Your task to perform on an android device: Add "bose soundsport free" to the cart on target, then select checkout. Image 0: 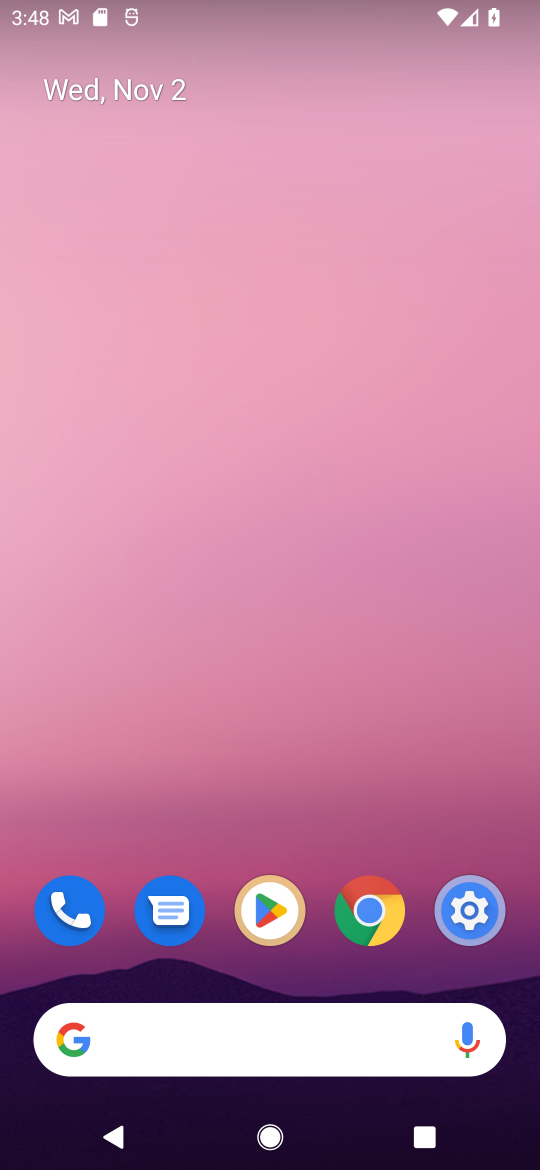
Step 0: click (155, 1029)
Your task to perform on an android device: Add "bose soundsport free" to the cart on target, then select checkout. Image 1: 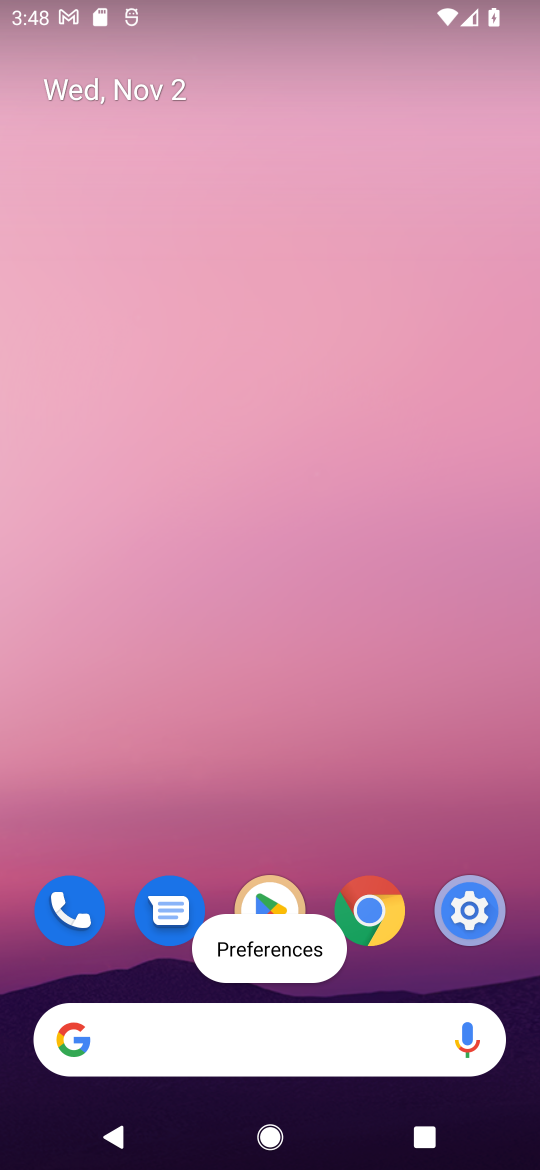
Step 1: click (161, 1034)
Your task to perform on an android device: Add "bose soundsport free" to the cart on target, then select checkout. Image 2: 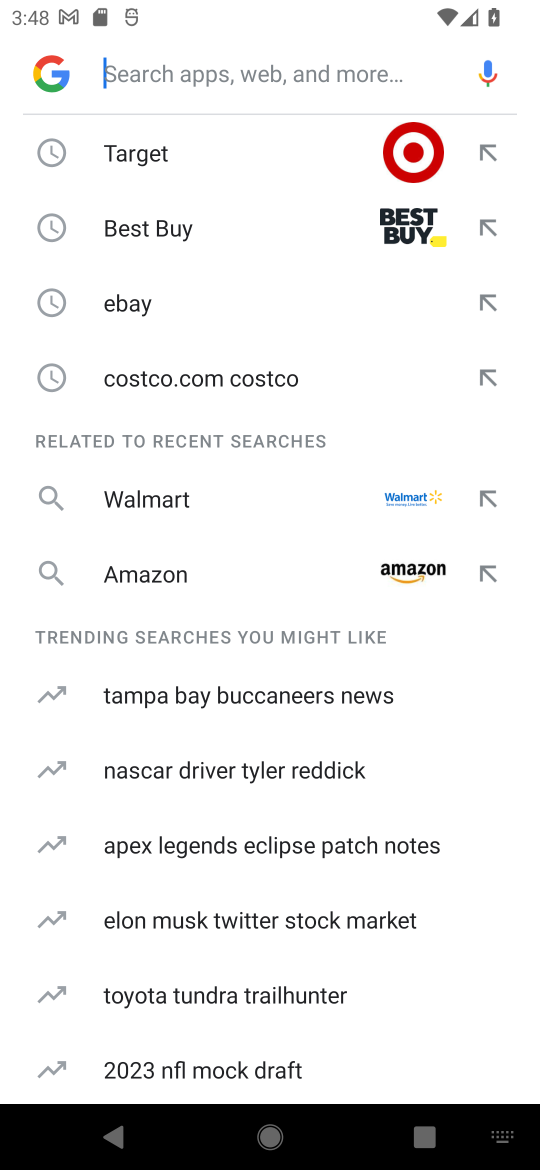
Step 2: click (147, 172)
Your task to perform on an android device: Add "bose soundsport free" to the cart on target, then select checkout. Image 3: 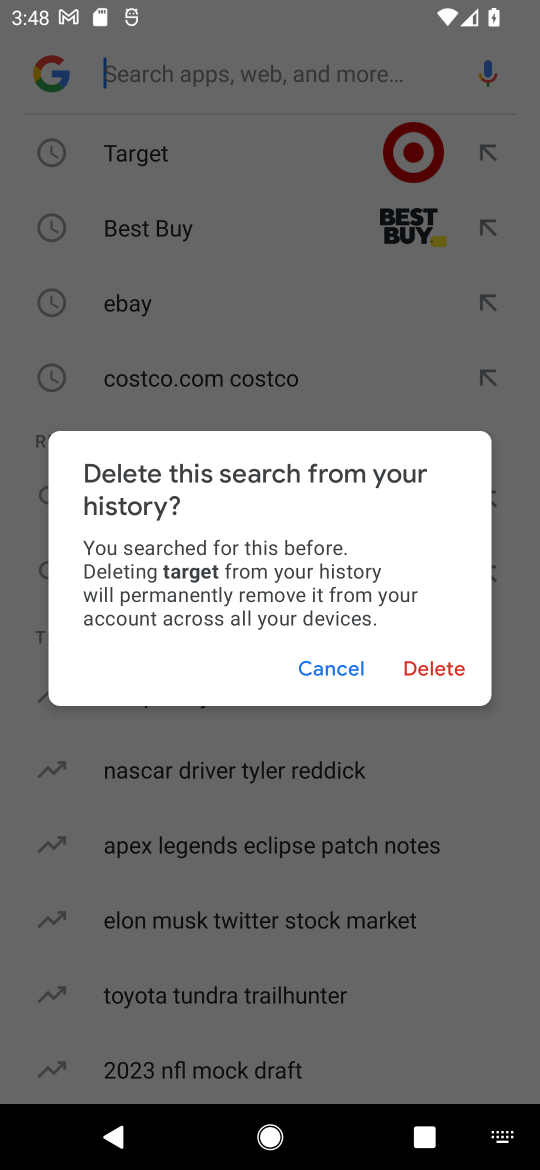
Step 3: click (300, 668)
Your task to perform on an android device: Add "bose soundsport free" to the cart on target, then select checkout. Image 4: 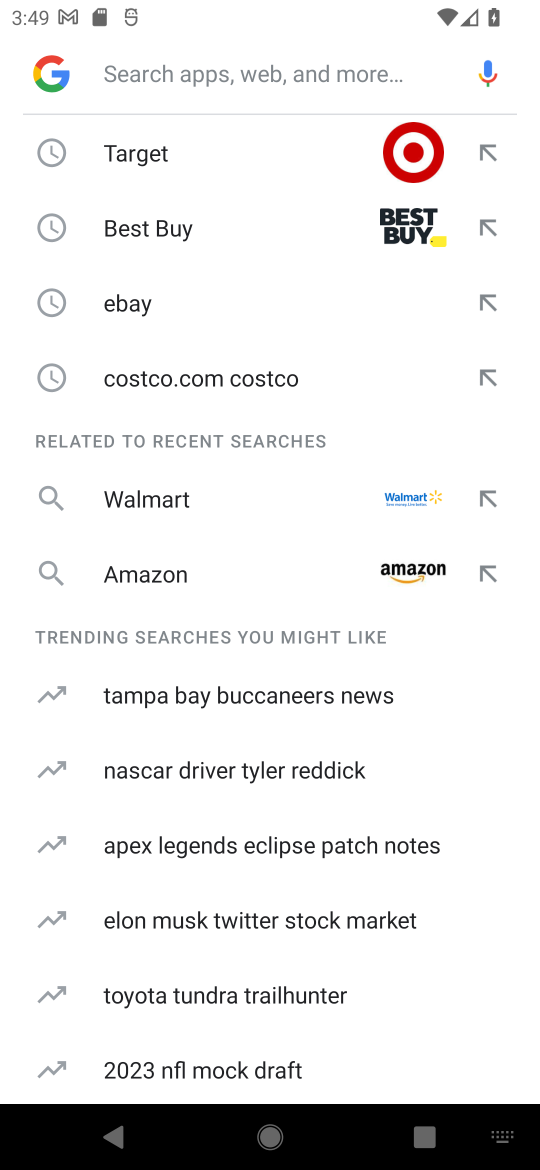
Step 4: type "target"
Your task to perform on an android device: Add "bose soundsport free" to the cart on target, then select checkout. Image 5: 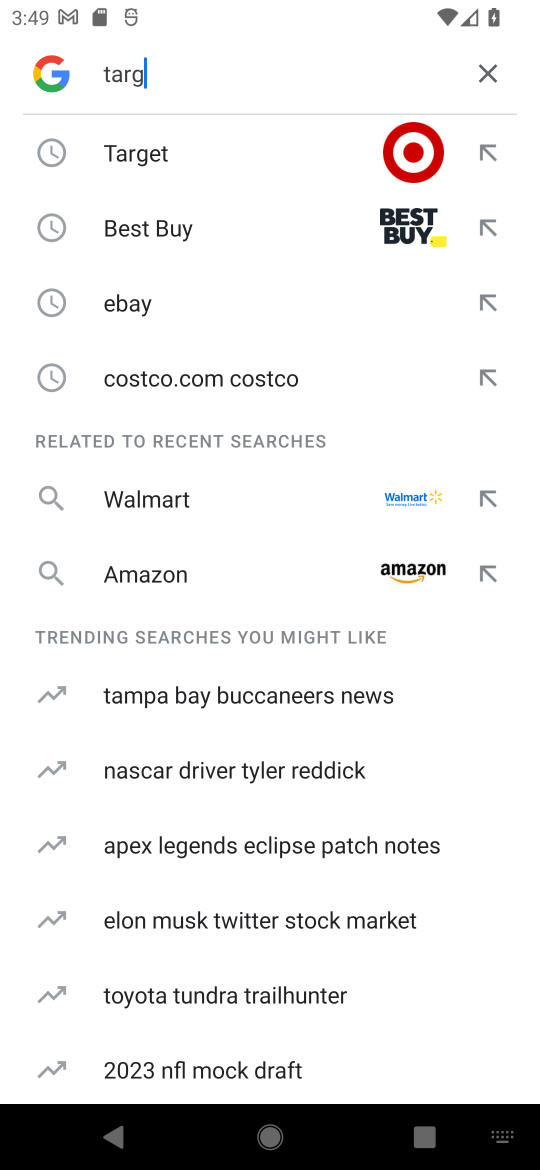
Step 5: type ""
Your task to perform on an android device: Add "bose soundsport free" to the cart on target, then select checkout. Image 6: 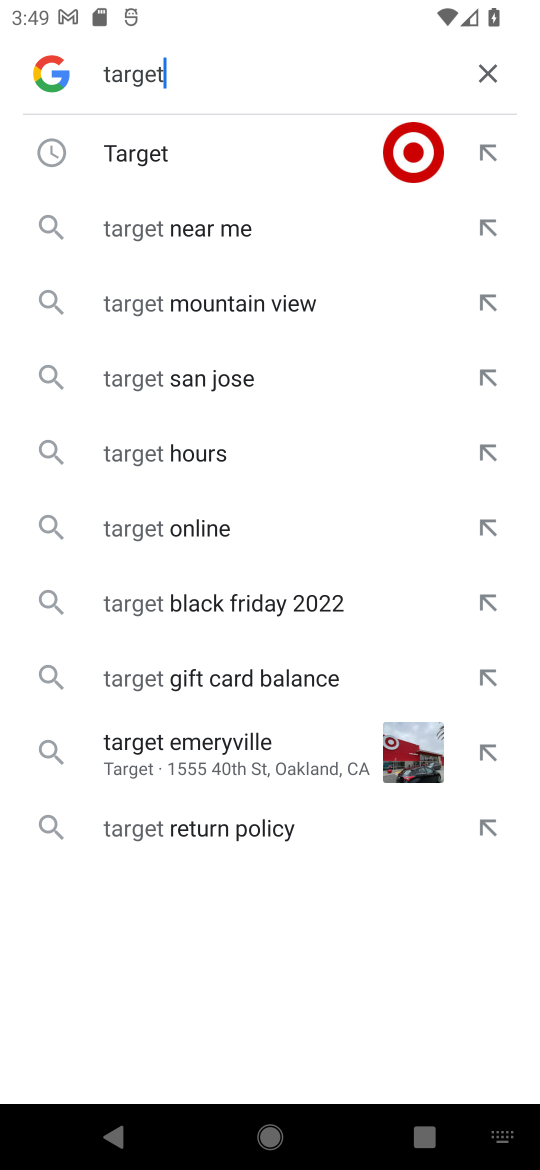
Step 6: press enter
Your task to perform on an android device: Add "bose soundsport free" to the cart on target, then select checkout. Image 7: 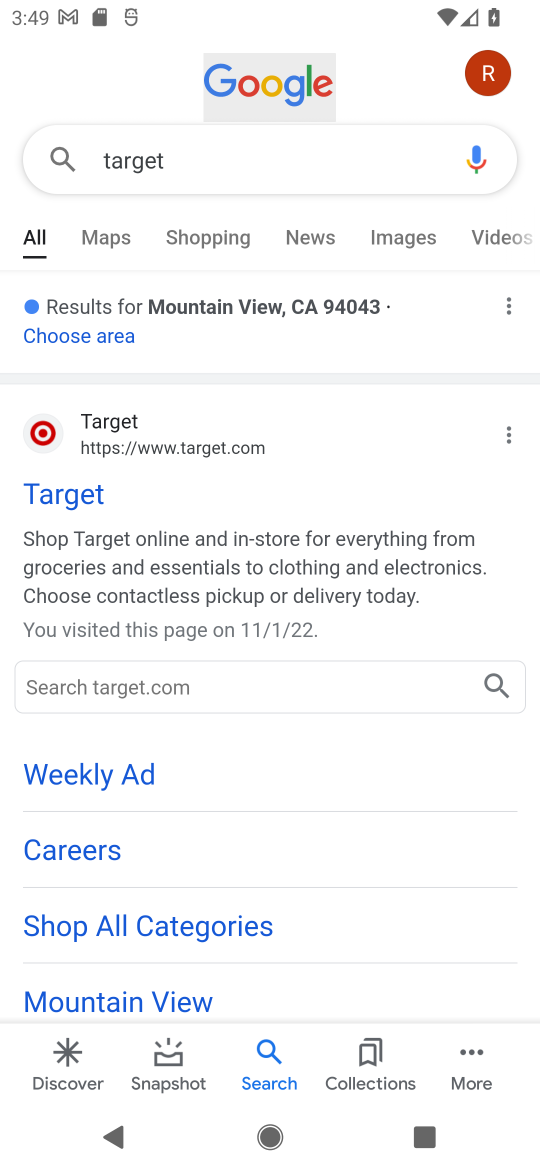
Step 7: click (164, 444)
Your task to perform on an android device: Add "bose soundsport free" to the cart on target, then select checkout. Image 8: 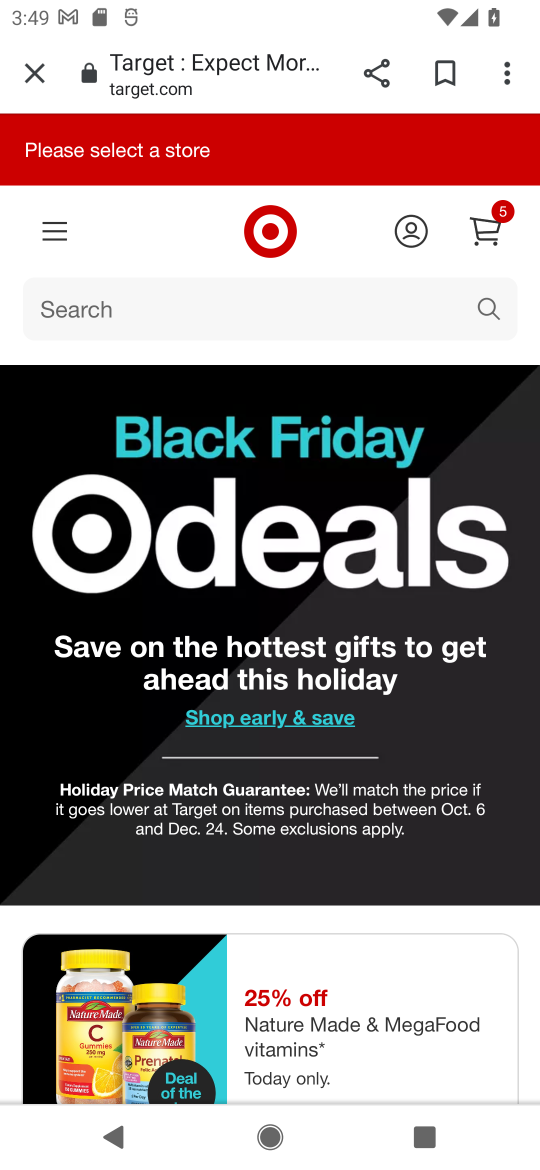
Step 8: click (184, 302)
Your task to perform on an android device: Add "bose soundsport free" to the cart on target, then select checkout. Image 9: 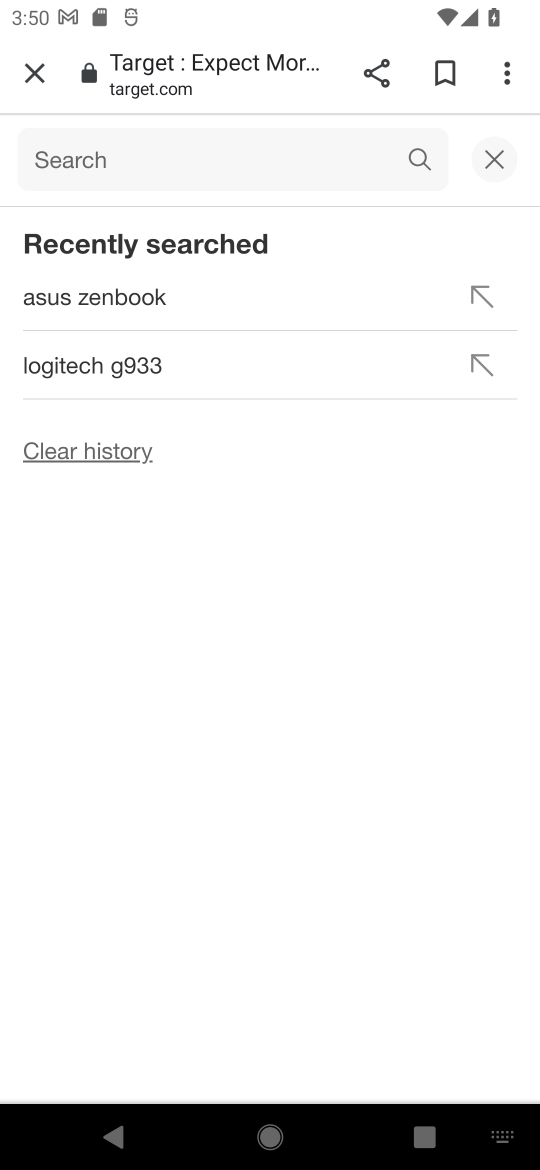
Step 9: type "bose soundsport free"
Your task to perform on an android device: Add "bose soundsport free" to the cart on target, then select checkout. Image 10: 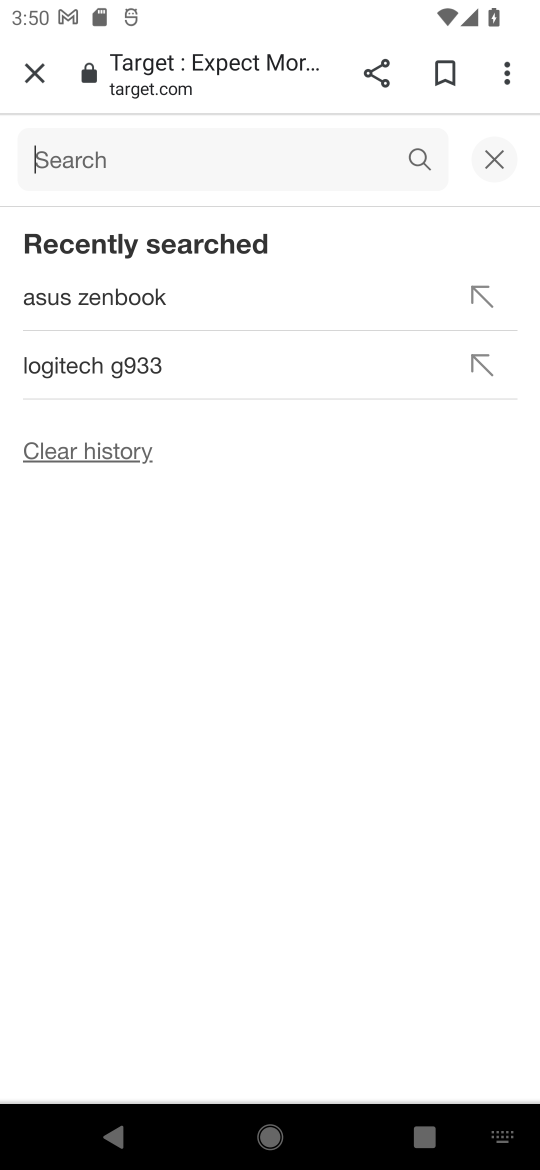
Step 10: type ""
Your task to perform on an android device: Add "bose soundsport free" to the cart on target, then select checkout. Image 11: 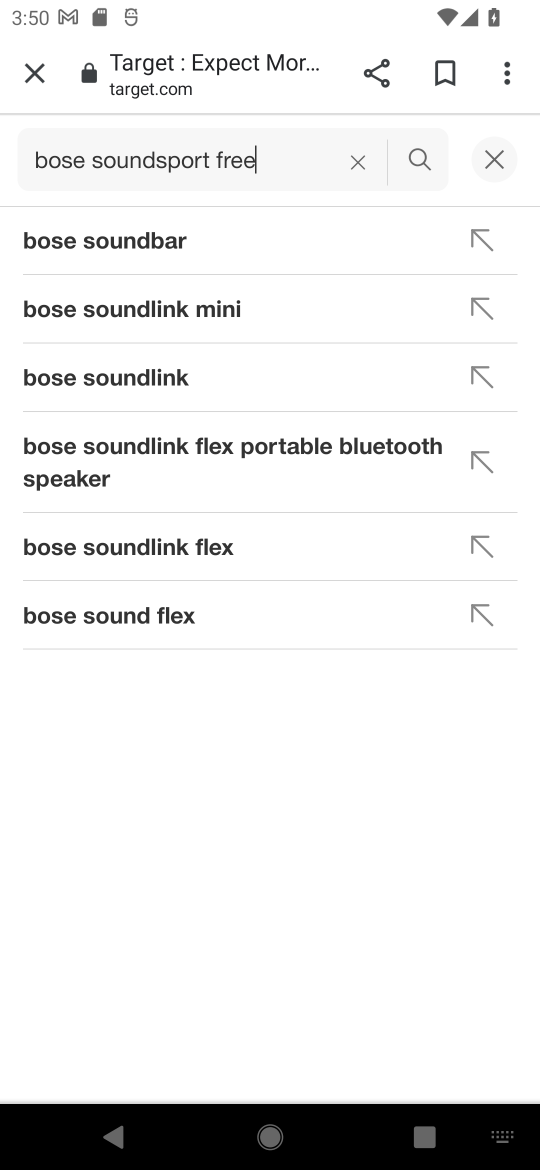
Step 11: press enter
Your task to perform on an android device: Add "bose soundsport free" to the cart on target, then select checkout. Image 12: 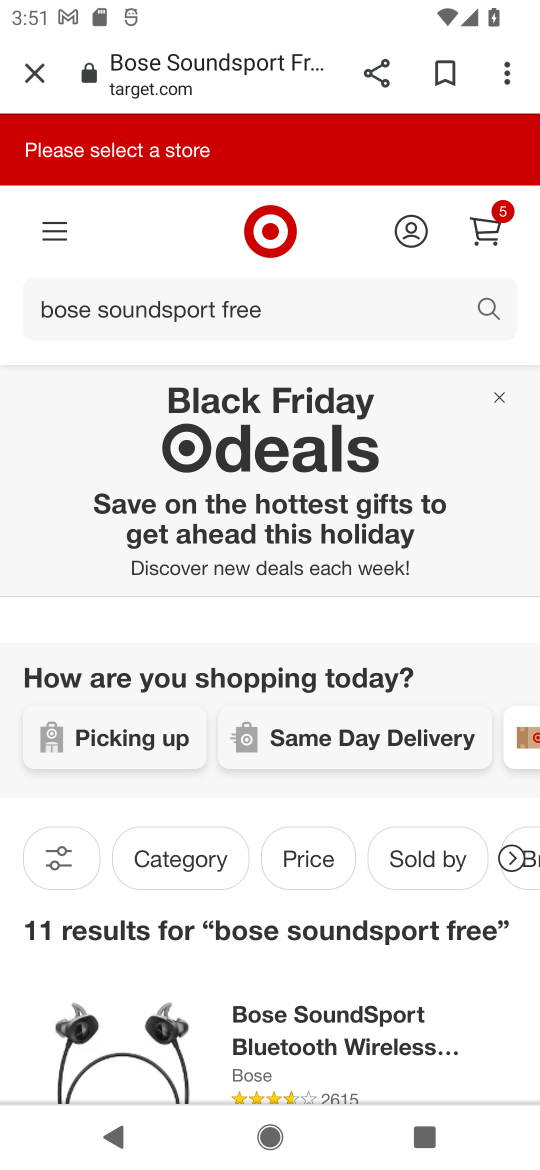
Step 12: click (482, 302)
Your task to perform on an android device: Add "bose soundsport free" to the cart on target, then select checkout. Image 13: 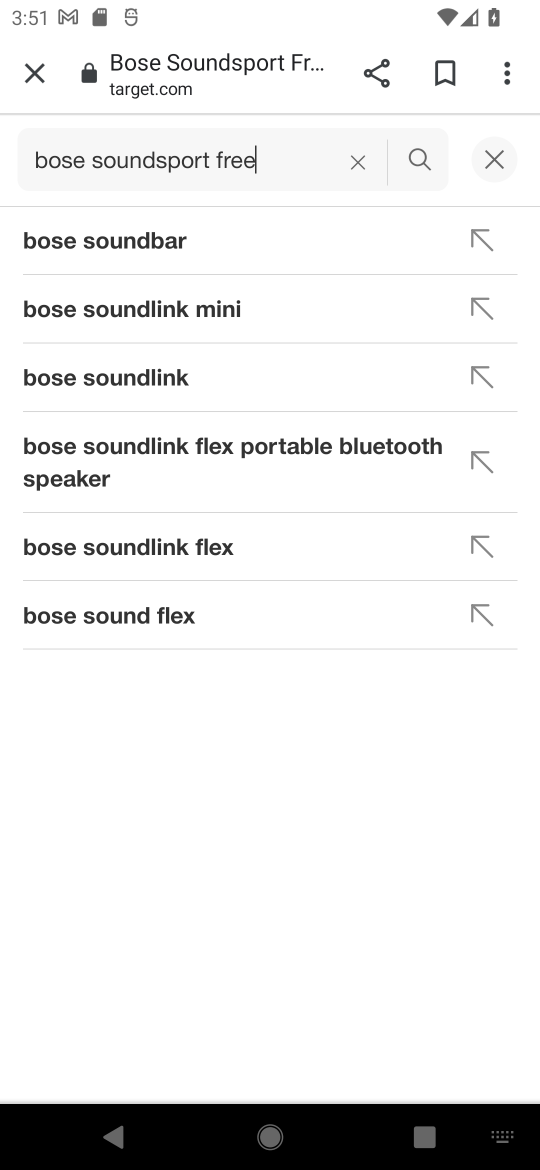
Step 13: click (425, 166)
Your task to perform on an android device: Add "bose soundsport free" to the cart on target, then select checkout. Image 14: 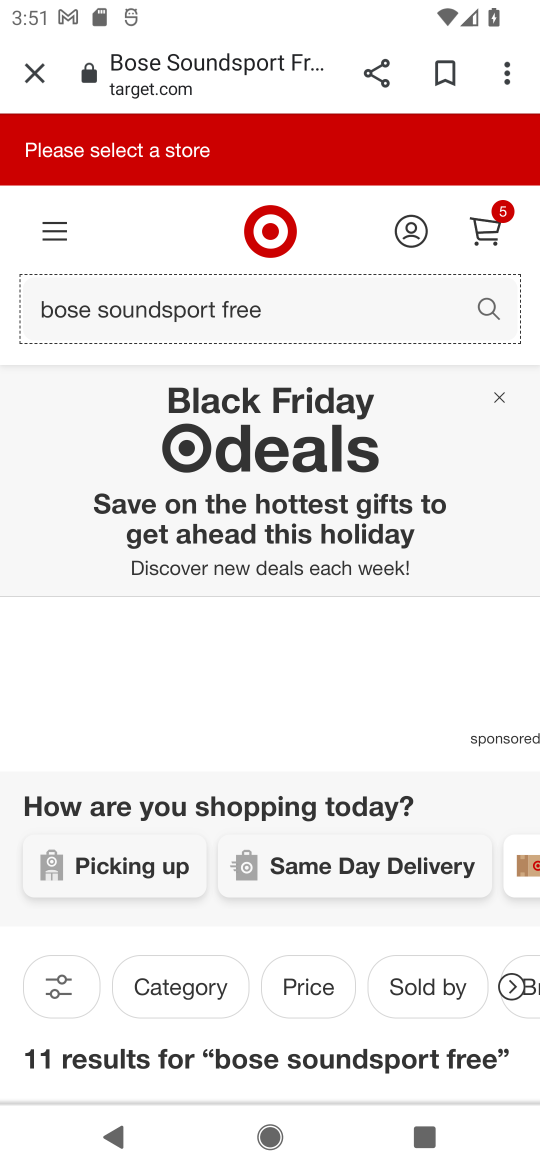
Step 14: drag from (331, 709) to (260, 199)
Your task to perform on an android device: Add "bose soundsport free" to the cart on target, then select checkout. Image 15: 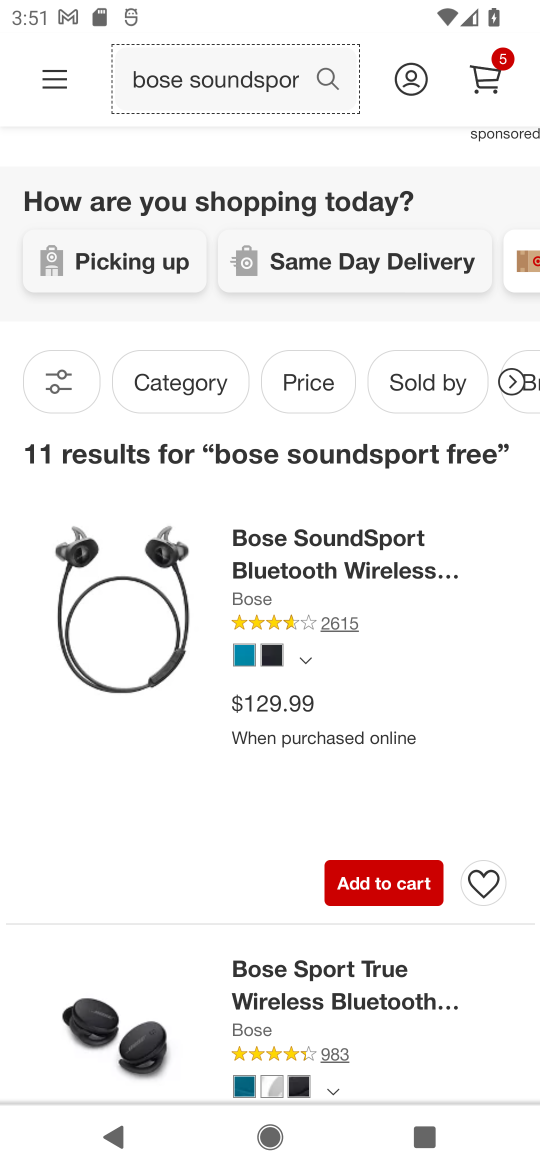
Step 15: click (319, 520)
Your task to perform on an android device: Add "bose soundsport free" to the cart on target, then select checkout. Image 16: 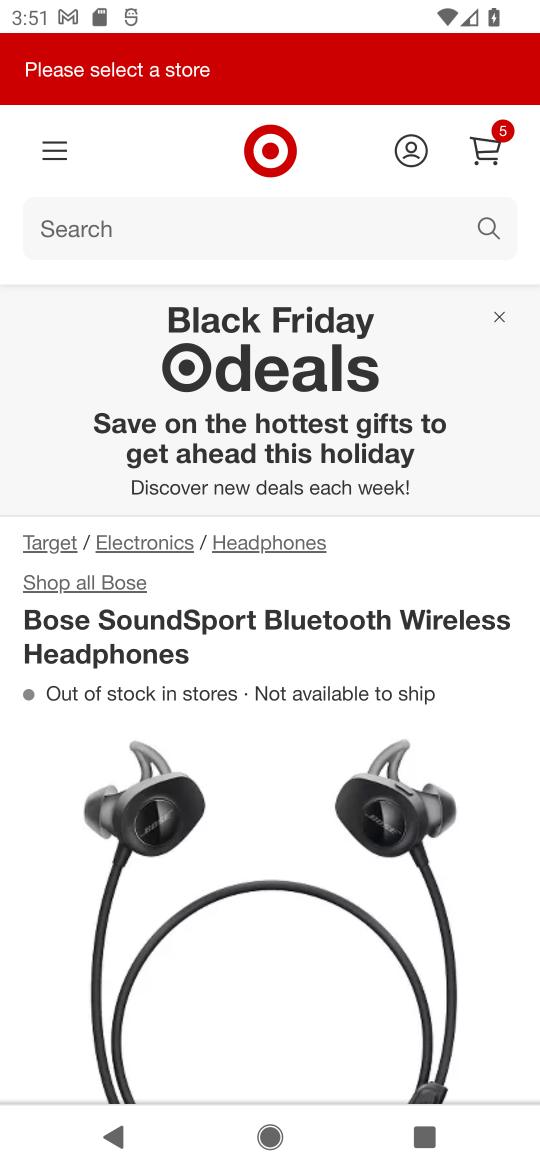
Step 16: drag from (333, 779) to (261, 289)
Your task to perform on an android device: Add "bose soundsport free" to the cart on target, then select checkout. Image 17: 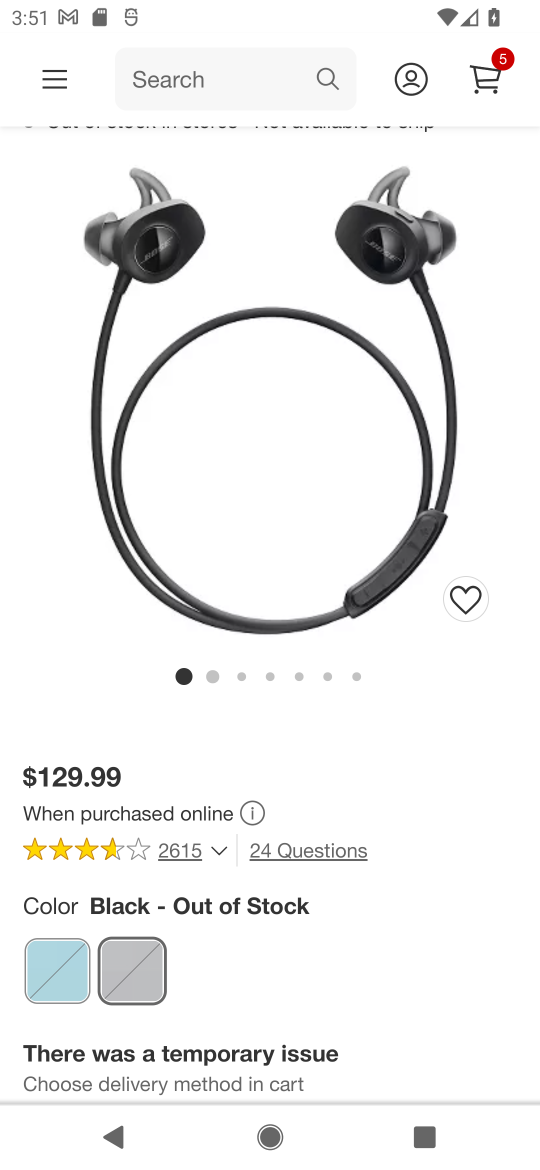
Step 17: drag from (302, 736) to (227, 319)
Your task to perform on an android device: Add "bose soundsport free" to the cart on target, then select checkout. Image 18: 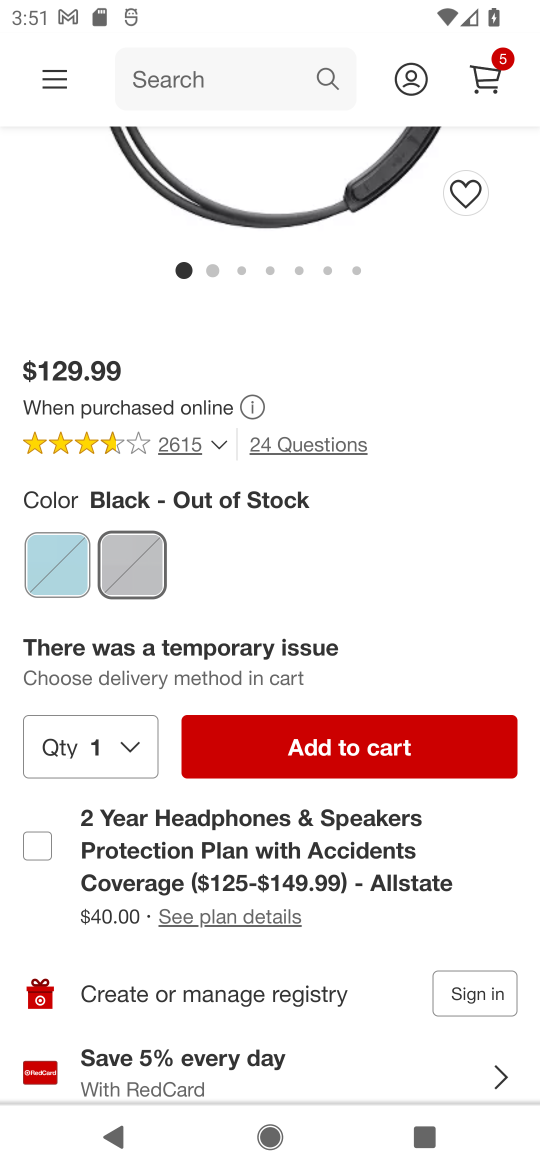
Step 18: click (384, 753)
Your task to perform on an android device: Add "bose soundsport free" to the cart on target, then select checkout. Image 19: 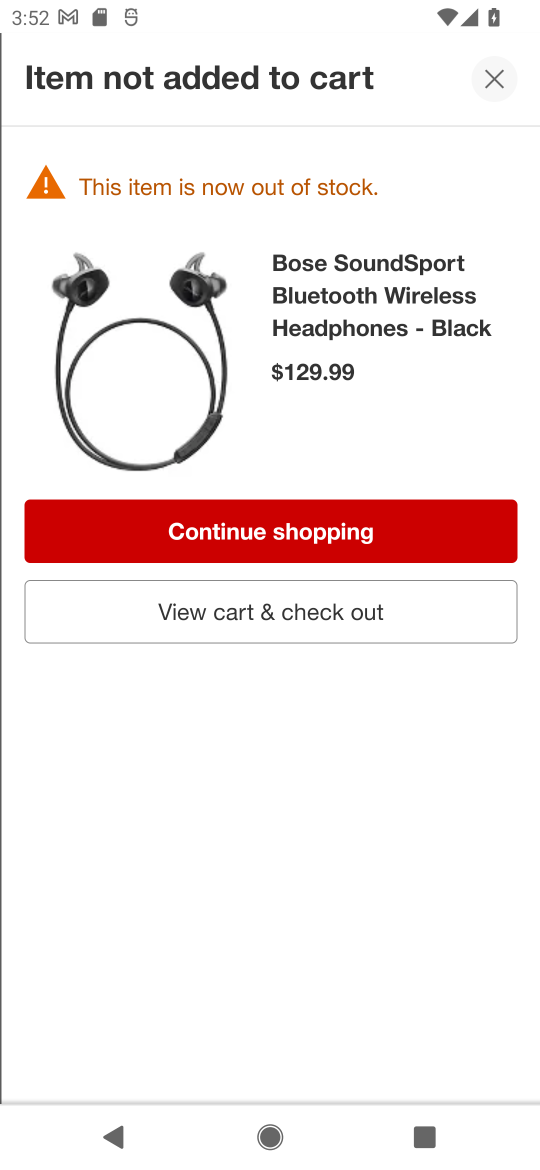
Step 19: task complete